Your task to perform on an android device: Open my contact list Image 0: 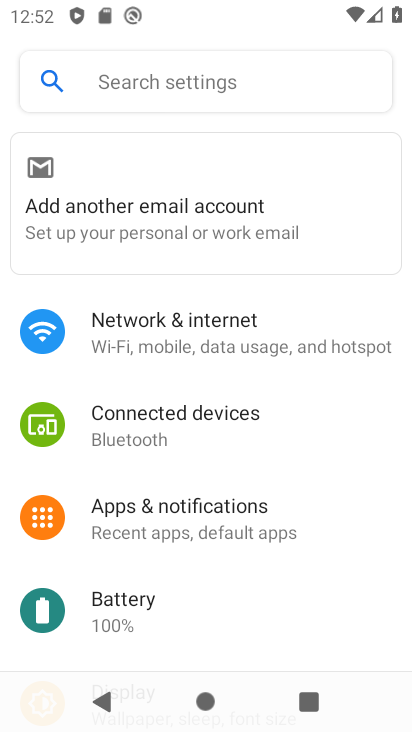
Step 0: press home button
Your task to perform on an android device: Open my contact list Image 1: 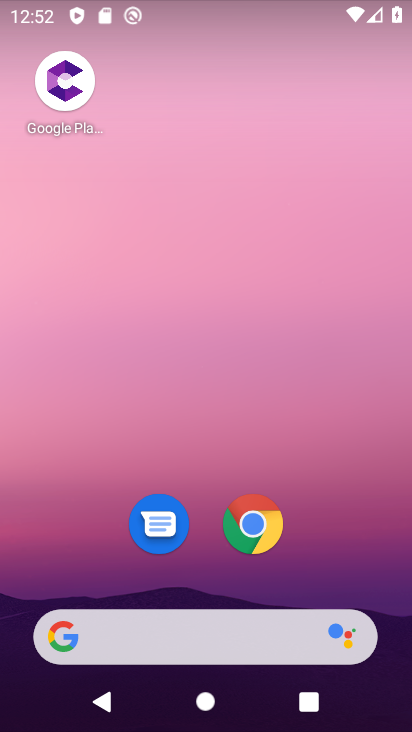
Step 1: drag from (194, 431) to (259, 35)
Your task to perform on an android device: Open my contact list Image 2: 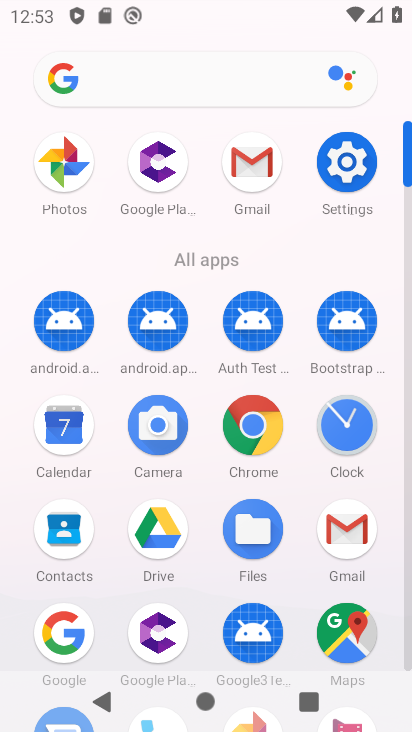
Step 2: click (68, 533)
Your task to perform on an android device: Open my contact list Image 3: 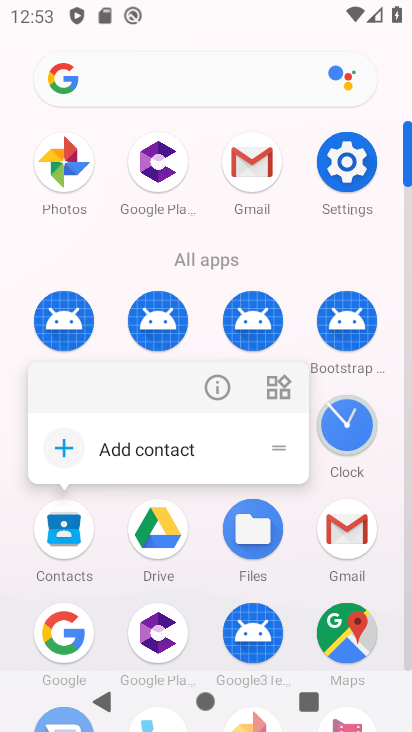
Step 3: click (71, 532)
Your task to perform on an android device: Open my contact list Image 4: 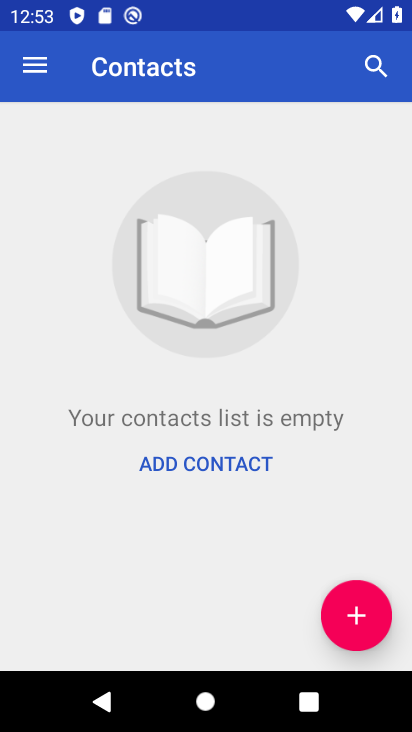
Step 4: task complete